Your task to perform on an android device: toggle notification dots Image 0: 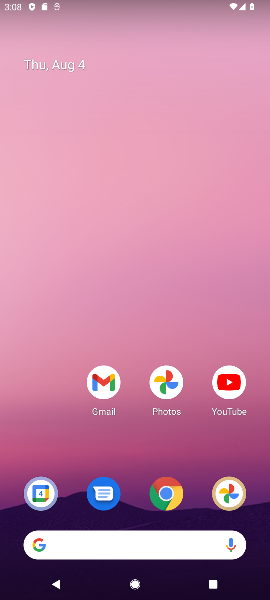
Step 0: drag from (127, 519) to (203, 140)
Your task to perform on an android device: toggle notification dots Image 1: 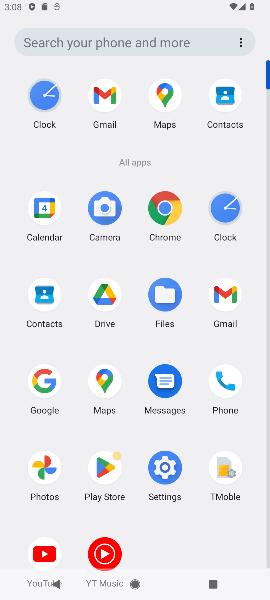
Step 1: click (161, 480)
Your task to perform on an android device: toggle notification dots Image 2: 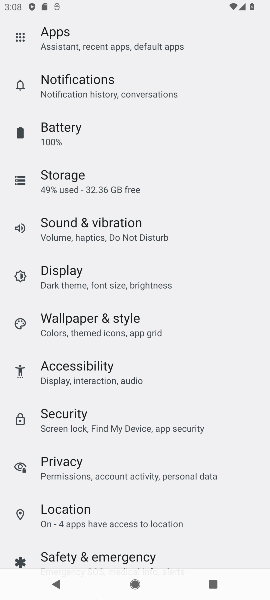
Step 2: click (100, 84)
Your task to perform on an android device: toggle notification dots Image 3: 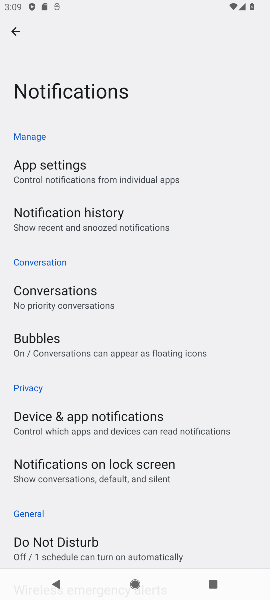
Step 3: click (64, 197)
Your task to perform on an android device: toggle notification dots Image 4: 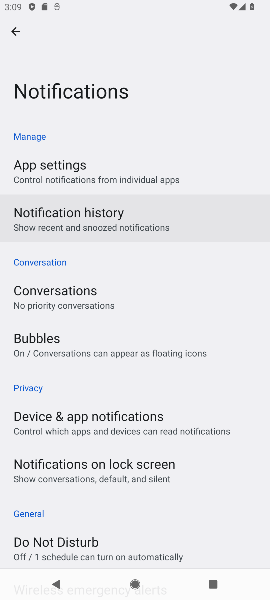
Step 4: click (64, 213)
Your task to perform on an android device: toggle notification dots Image 5: 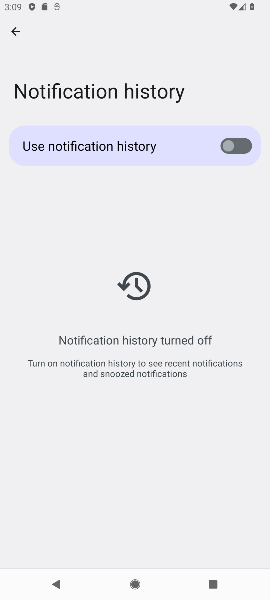
Step 5: click (11, 38)
Your task to perform on an android device: toggle notification dots Image 6: 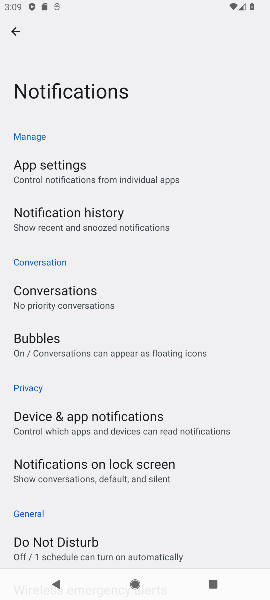
Step 6: drag from (131, 513) to (174, 240)
Your task to perform on an android device: toggle notification dots Image 7: 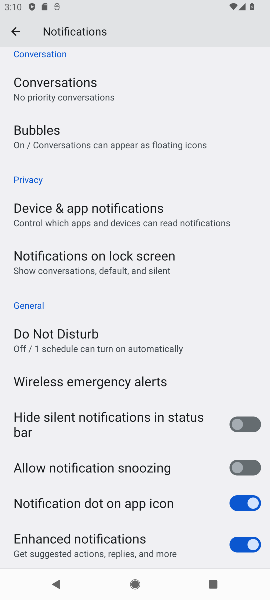
Step 7: click (249, 499)
Your task to perform on an android device: toggle notification dots Image 8: 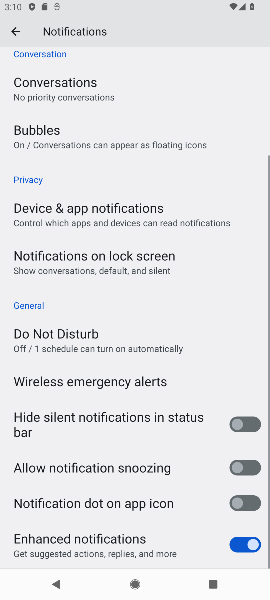
Step 8: task complete